Your task to perform on an android device: snooze an email in the gmail app Image 0: 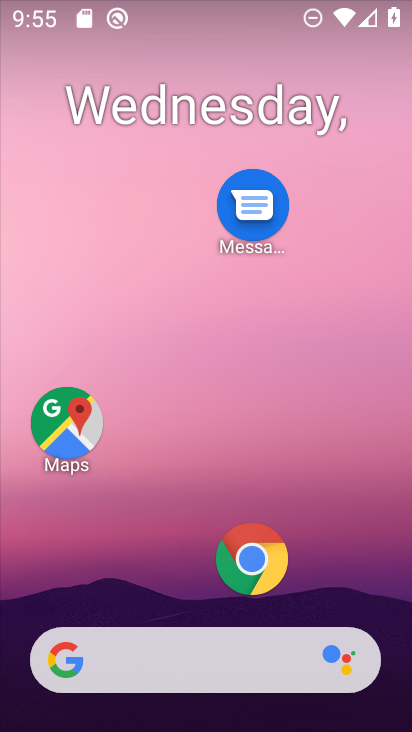
Step 0: drag from (164, 601) to (409, 556)
Your task to perform on an android device: snooze an email in the gmail app Image 1: 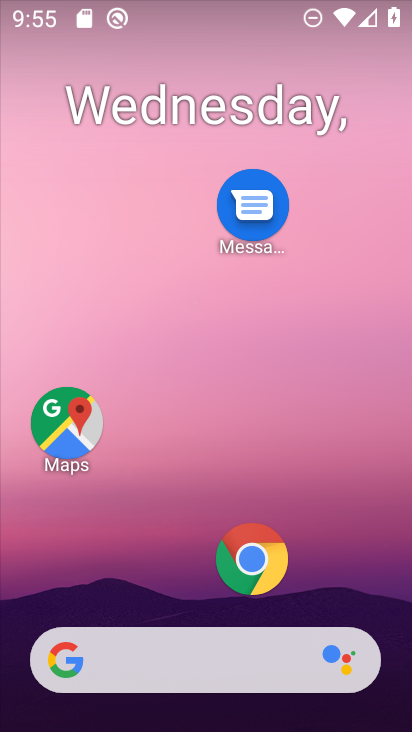
Step 1: click (357, 496)
Your task to perform on an android device: snooze an email in the gmail app Image 2: 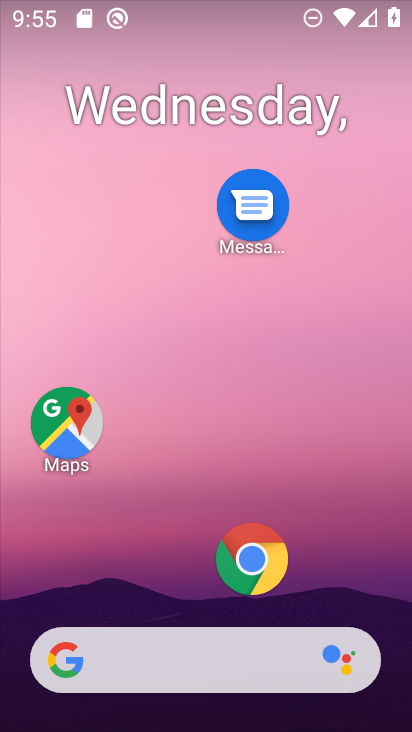
Step 2: drag from (351, 648) to (316, 86)
Your task to perform on an android device: snooze an email in the gmail app Image 3: 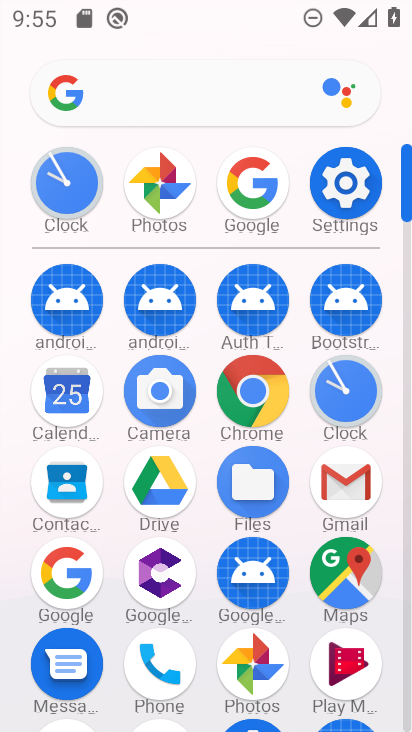
Step 3: click (338, 498)
Your task to perform on an android device: snooze an email in the gmail app Image 4: 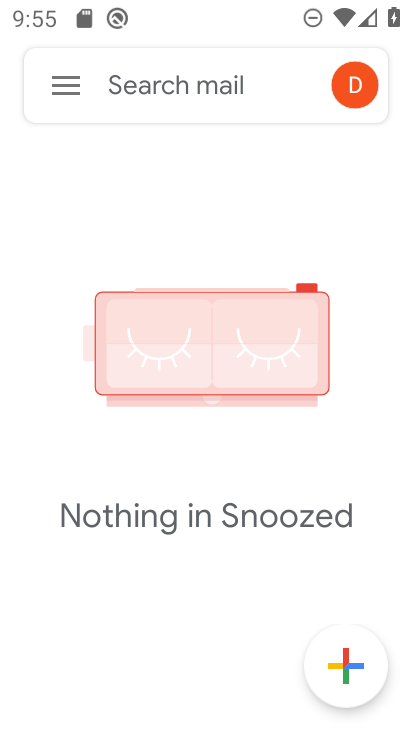
Step 4: click (63, 83)
Your task to perform on an android device: snooze an email in the gmail app Image 5: 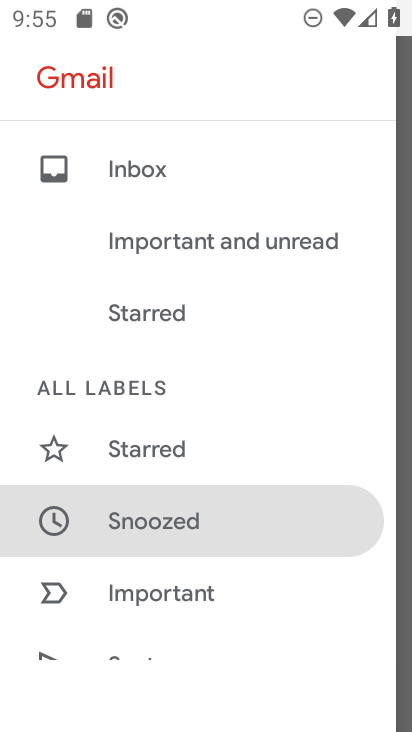
Step 5: drag from (147, 573) to (201, 116)
Your task to perform on an android device: snooze an email in the gmail app Image 6: 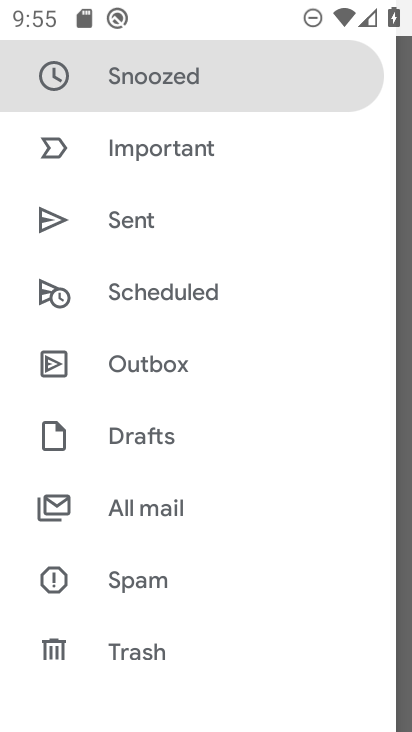
Step 6: click (169, 515)
Your task to perform on an android device: snooze an email in the gmail app Image 7: 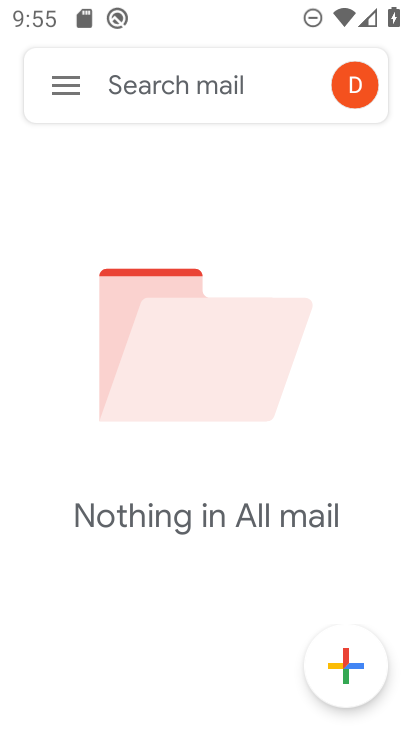
Step 7: task complete